Your task to perform on an android device: turn notification dots on Image 0: 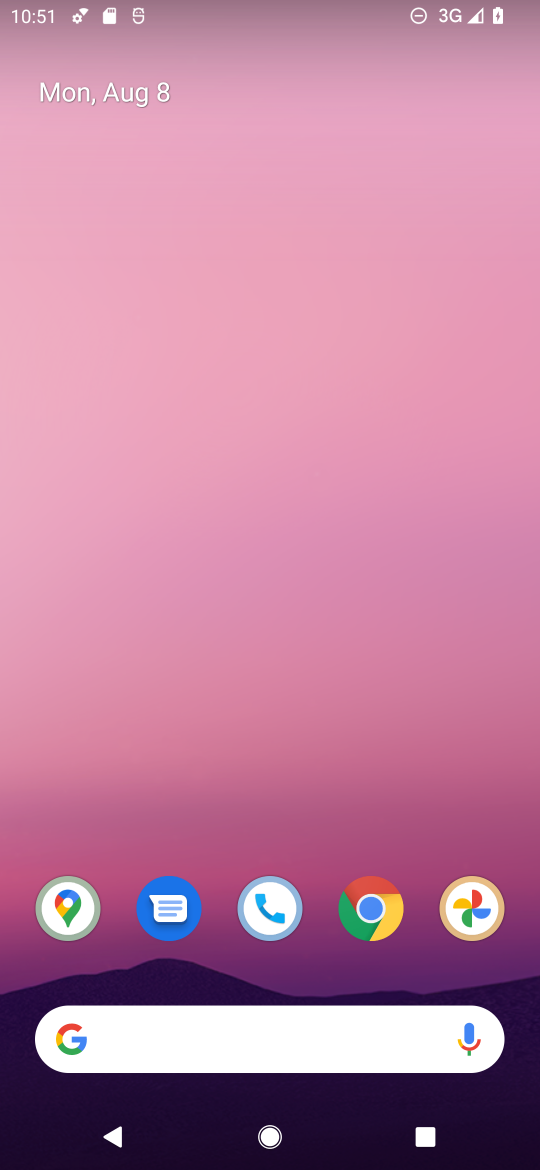
Step 0: press home button
Your task to perform on an android device: turn notification dots on Image 1: 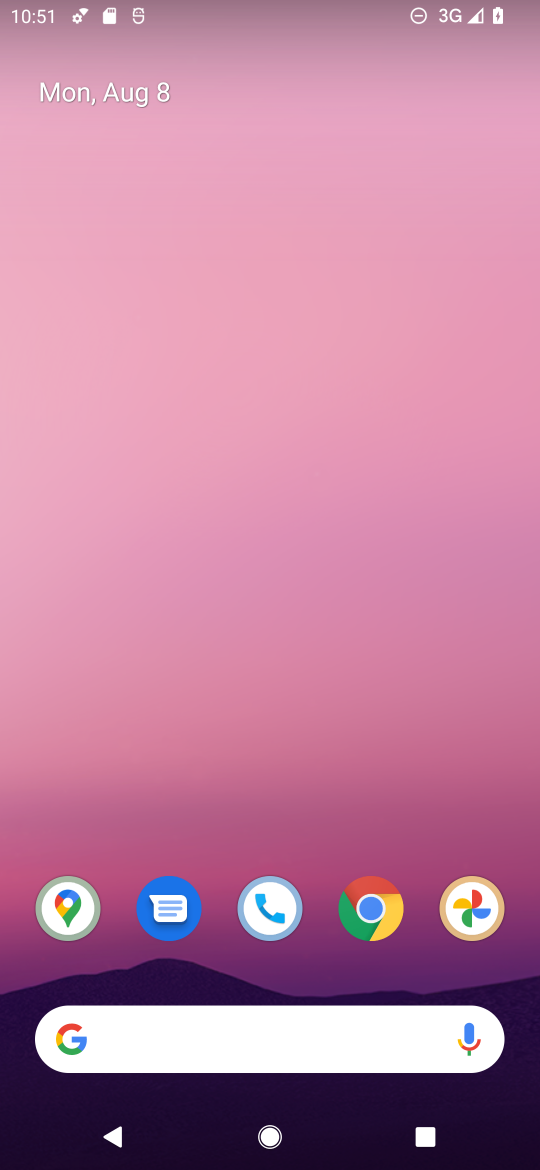
Step 1: drag from (323, 860) to (345, 0)
Your task to perform on an android device: turn notification dots on Image 2: 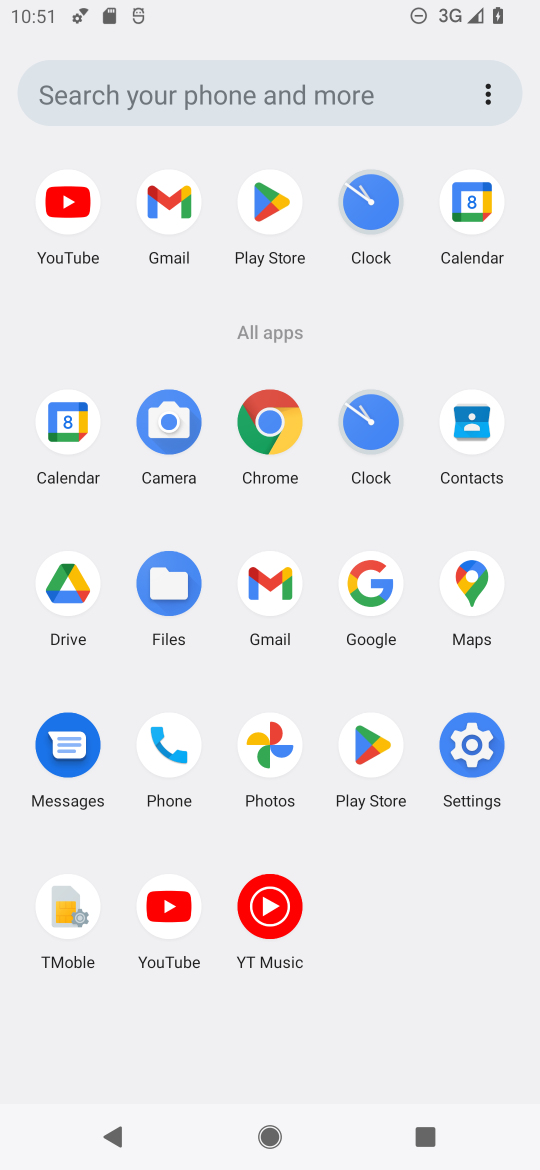
Step 2: click (472, 742)
Your task to perform on an android device: turn notification dots on Image 3: 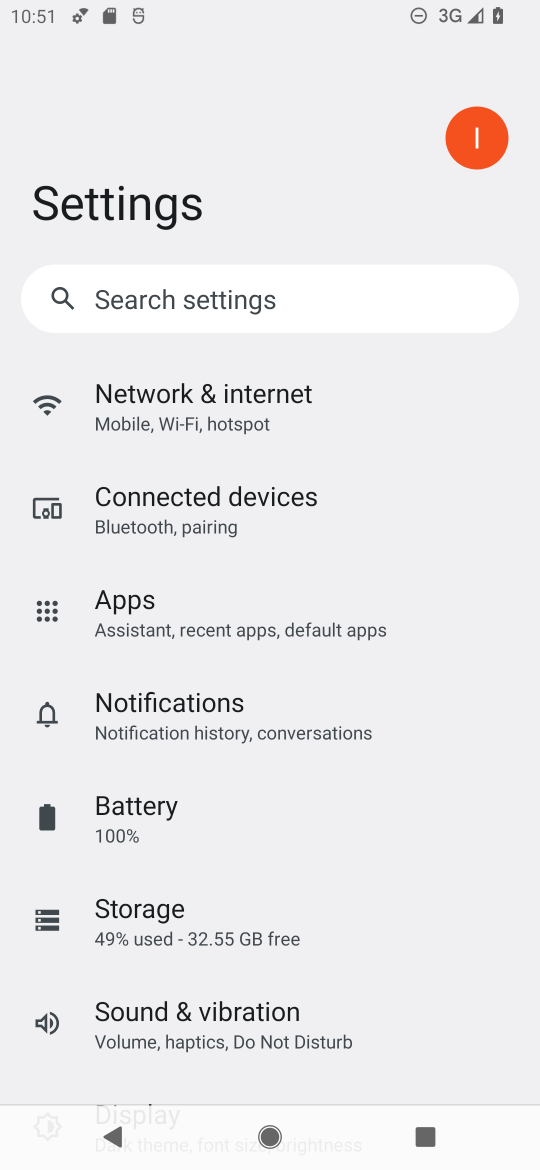
Step 3: click (257, 706)
Your task to perform on an android device: turn notification dots on Image 4: 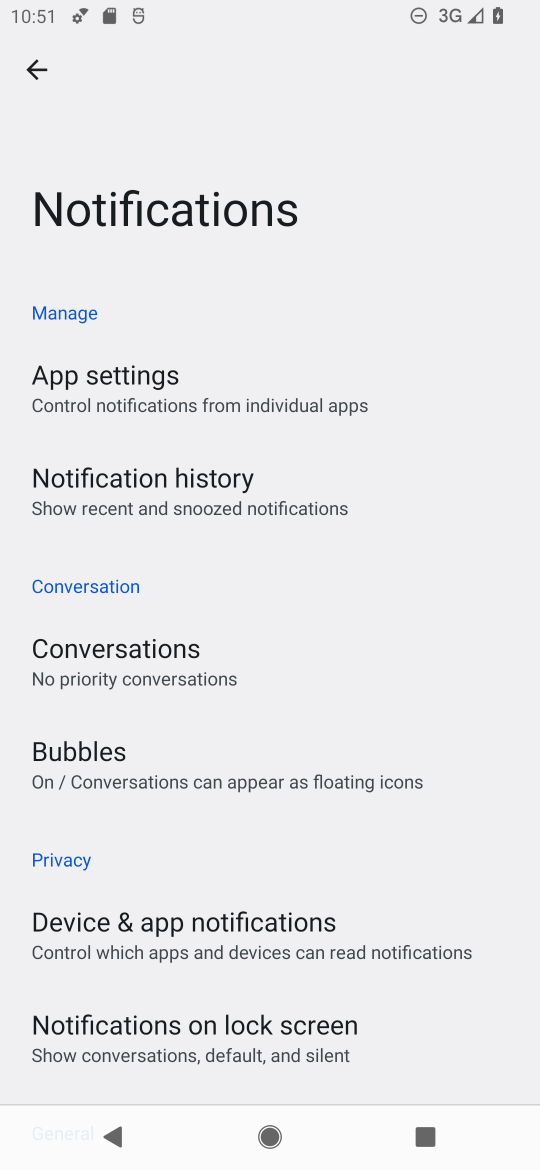
Step 4: task complete